Your task to perform on an android device: Clear all items from cart on amazon.com. Add "lg ultragear" to the cart on amazon.com Image 0: 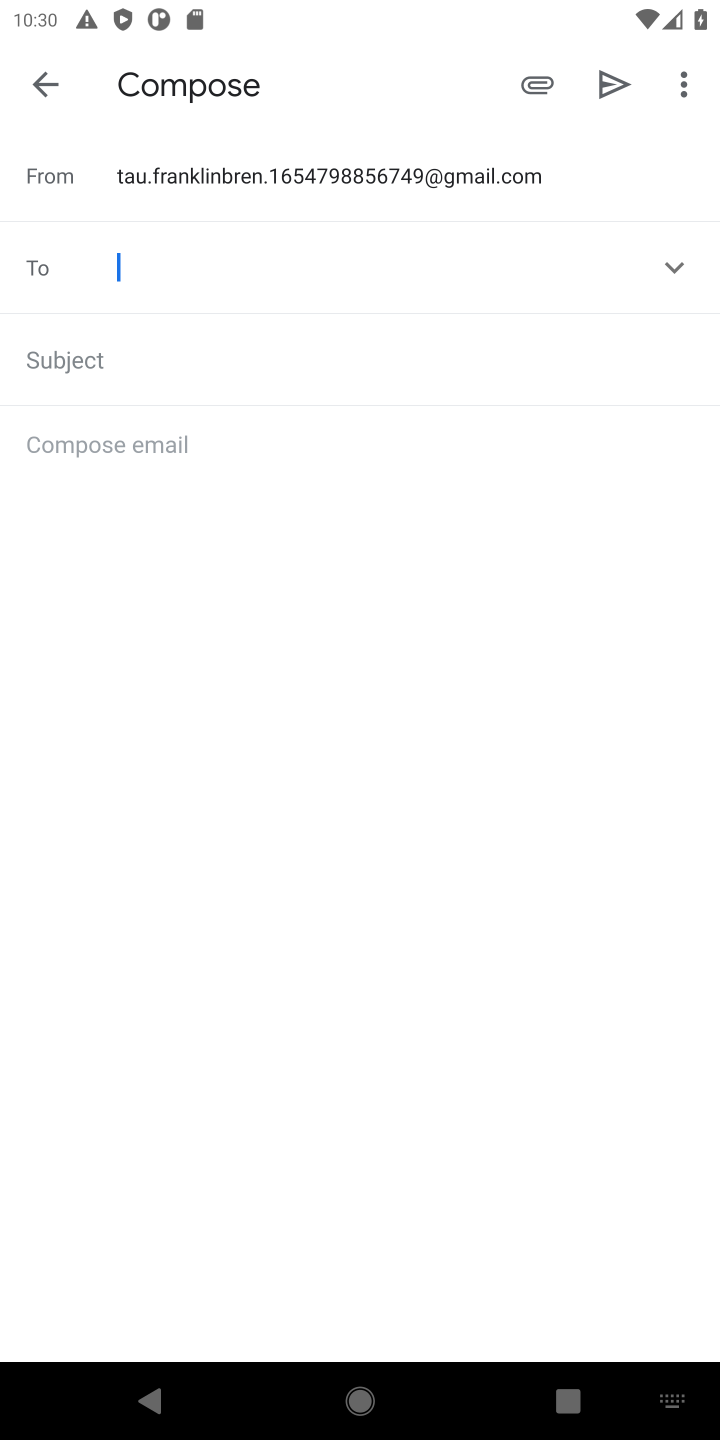
Step 0: press home button
Your task to perform on an android device: Clear all items from cart on amazon.com. Add "lg ultragear" to the cart on amazon.com Image 1: 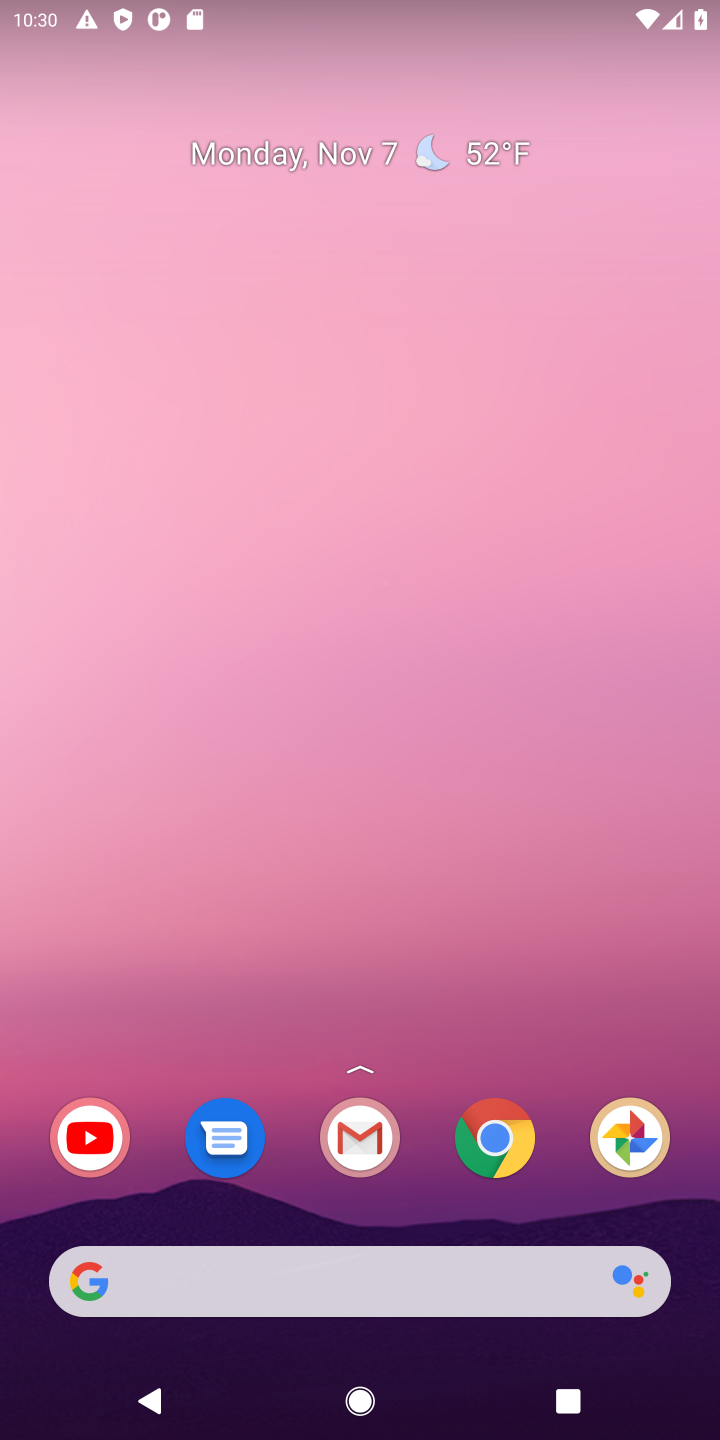
Step 1: click (504, 1141)
Your task to perform on an android device: Clear all items from cart on amazon.com. Add "lg ultragear" to the cart on amazon.com Image 2: 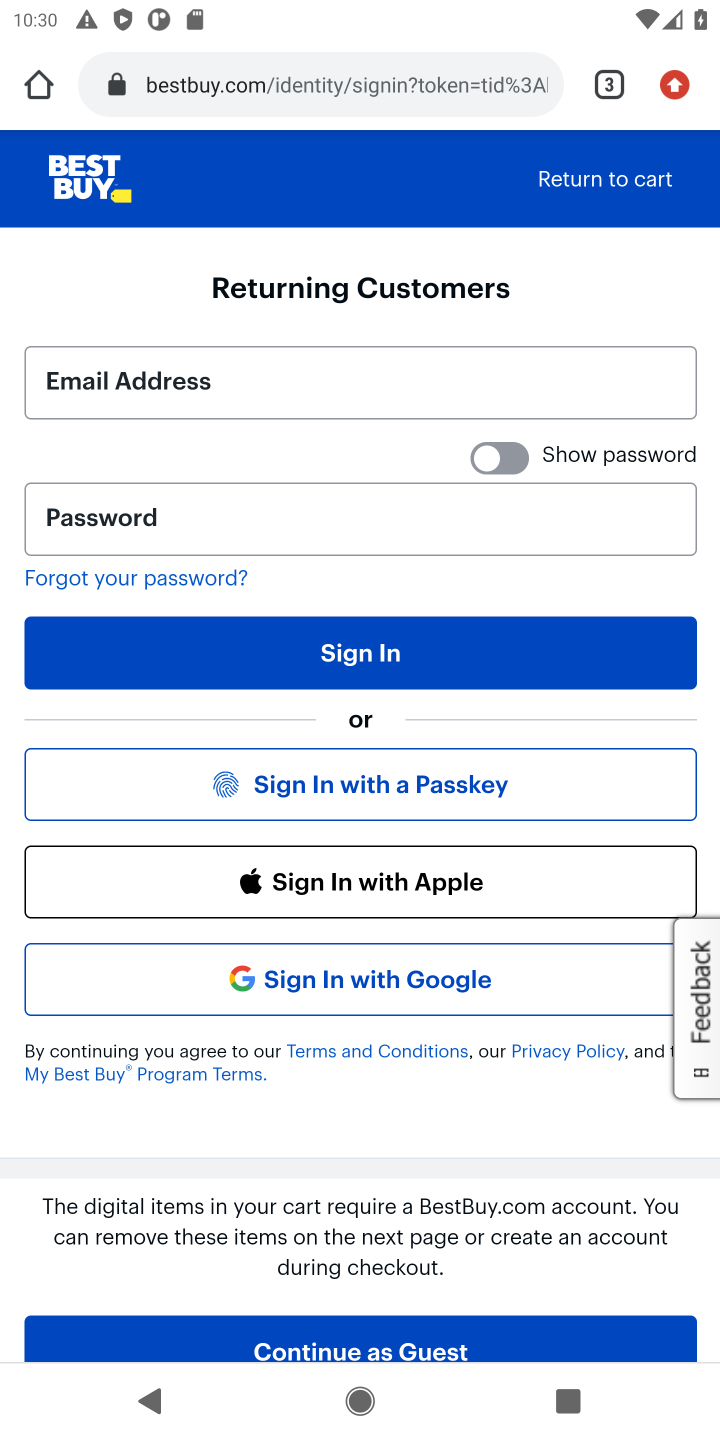
Step 2: click (267, 80)
Your task to perform on an android device: Clear all items from cart on amazon.com. Add "lg ultragear" to the cart on amazon.com Image 3: 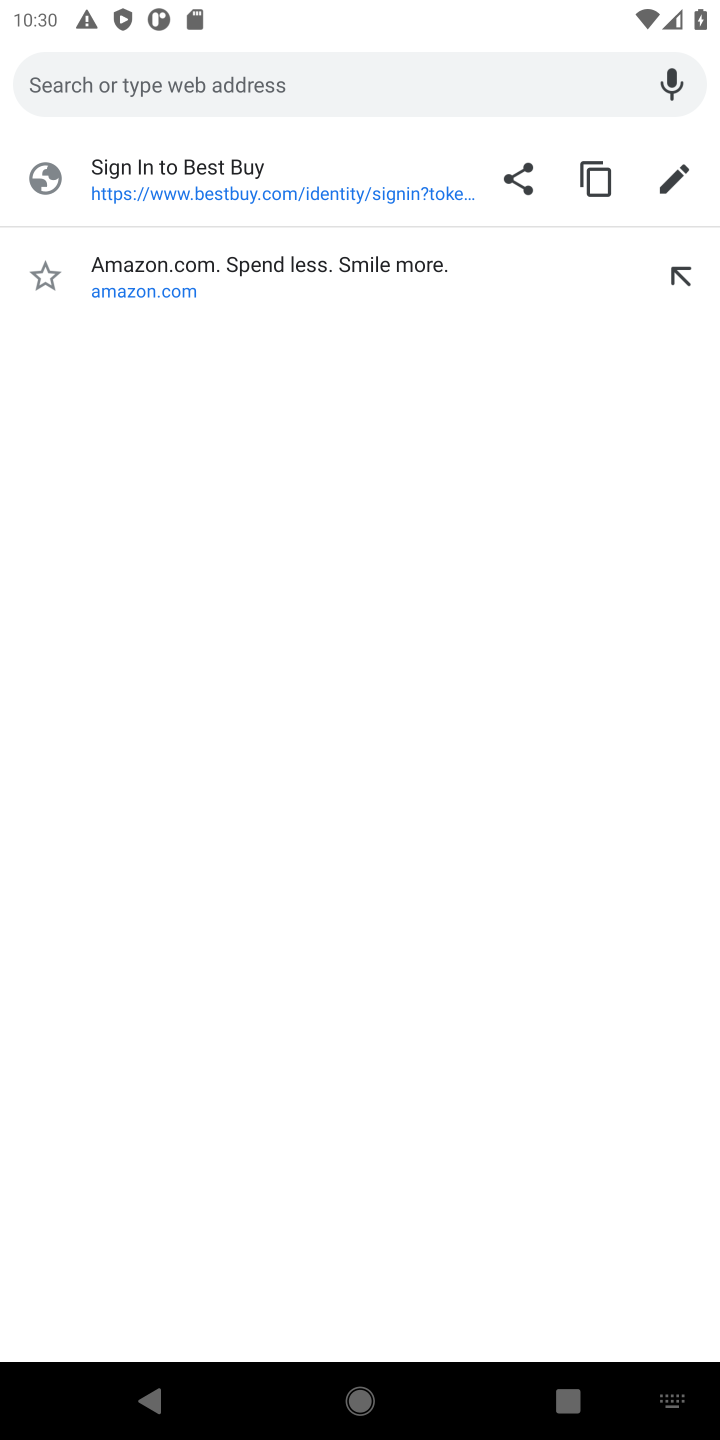
Step 3: type "amazon"
Your task to perform on an android device: Clear all items from cart on amazon.com. Add "lg ultragear" to the cart on amazon.com Image 4: 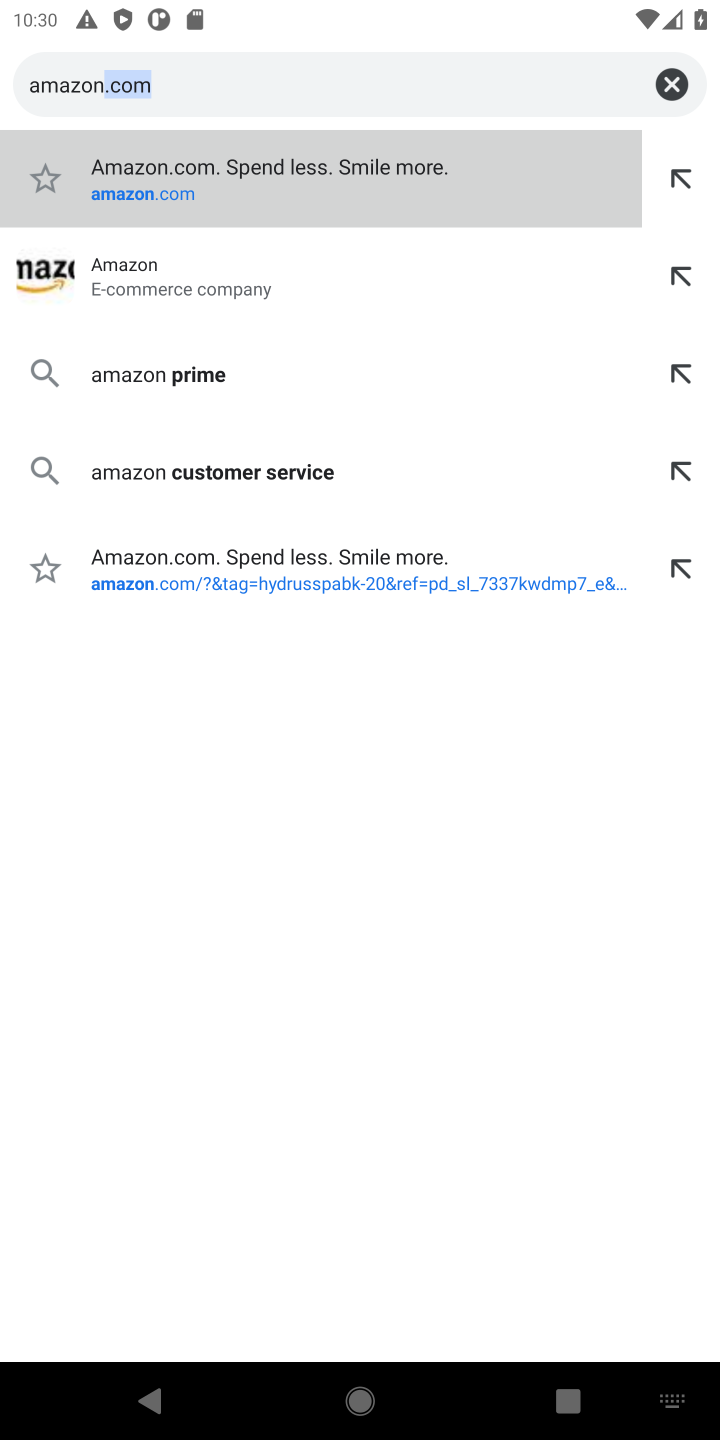
Step 4: click (99, 275)
Your task to perform on an android device: Clear all items from cart on amazon.com. Add "lg ultragear" to the cart on amazon.com Image 5: 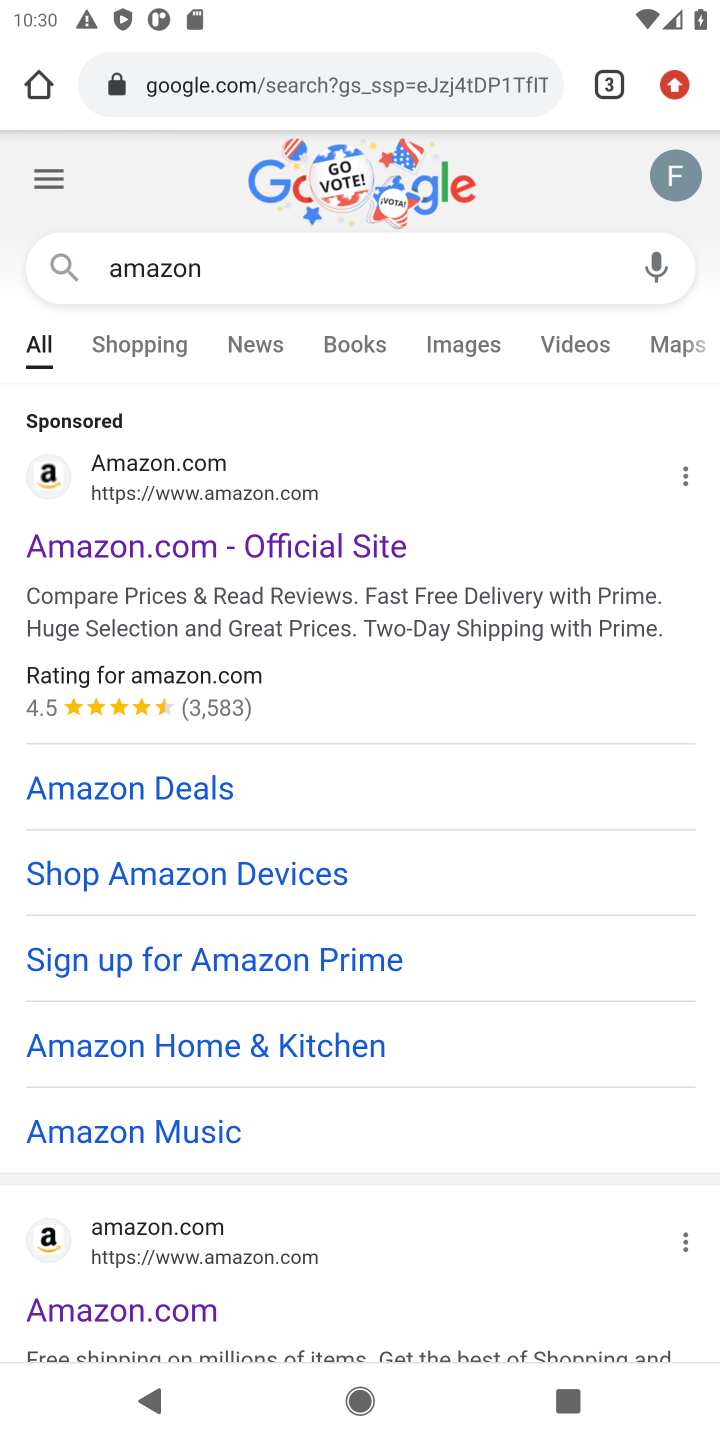
Step 5: drag from (231, 1021) to (250, 513)
Your task to perform on an android device: Clear all items from cart on amazon.com. Add "lg ultragear" to the cart on amazon.com Image 6: 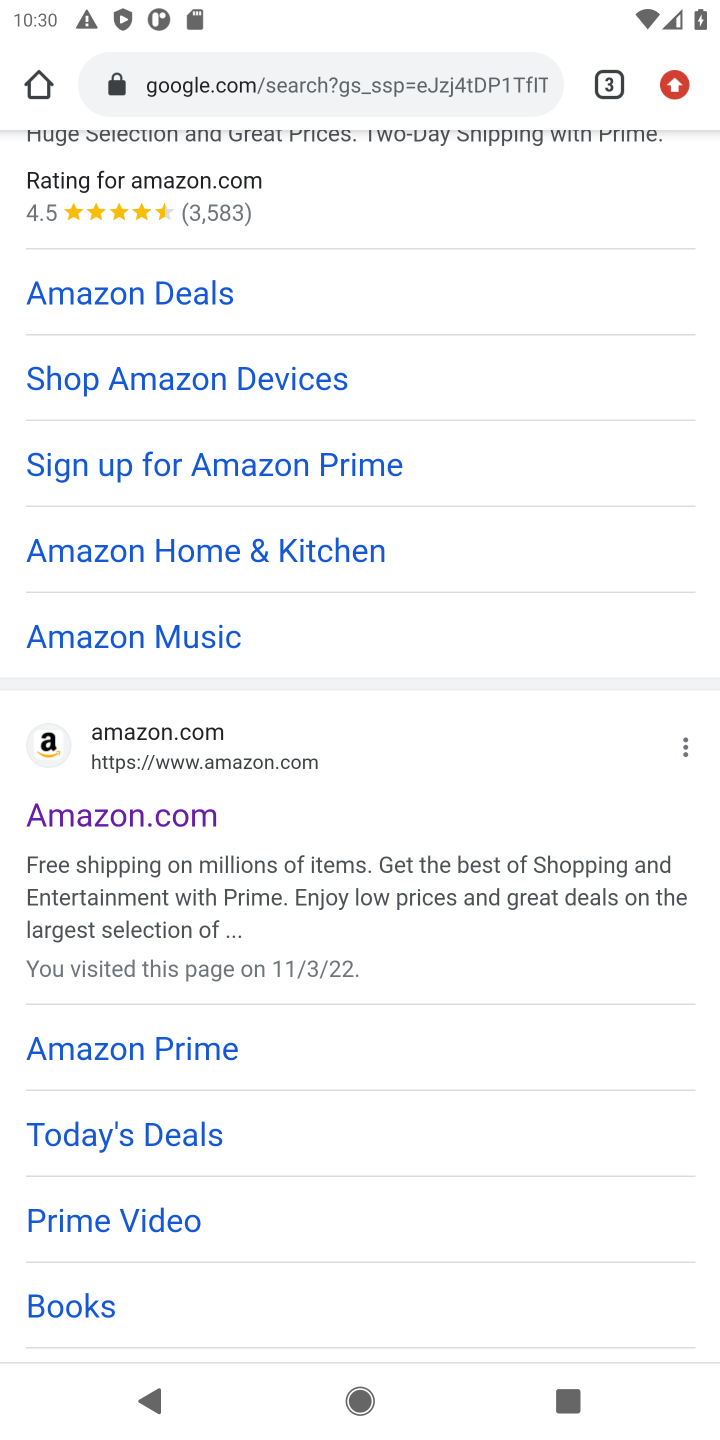
Step 6: click (96, 825)
Your task to perform on an android device: Clear all items from cart on amazon.com. Add "lg ultragear" to the cart on amazon.com Image 7: 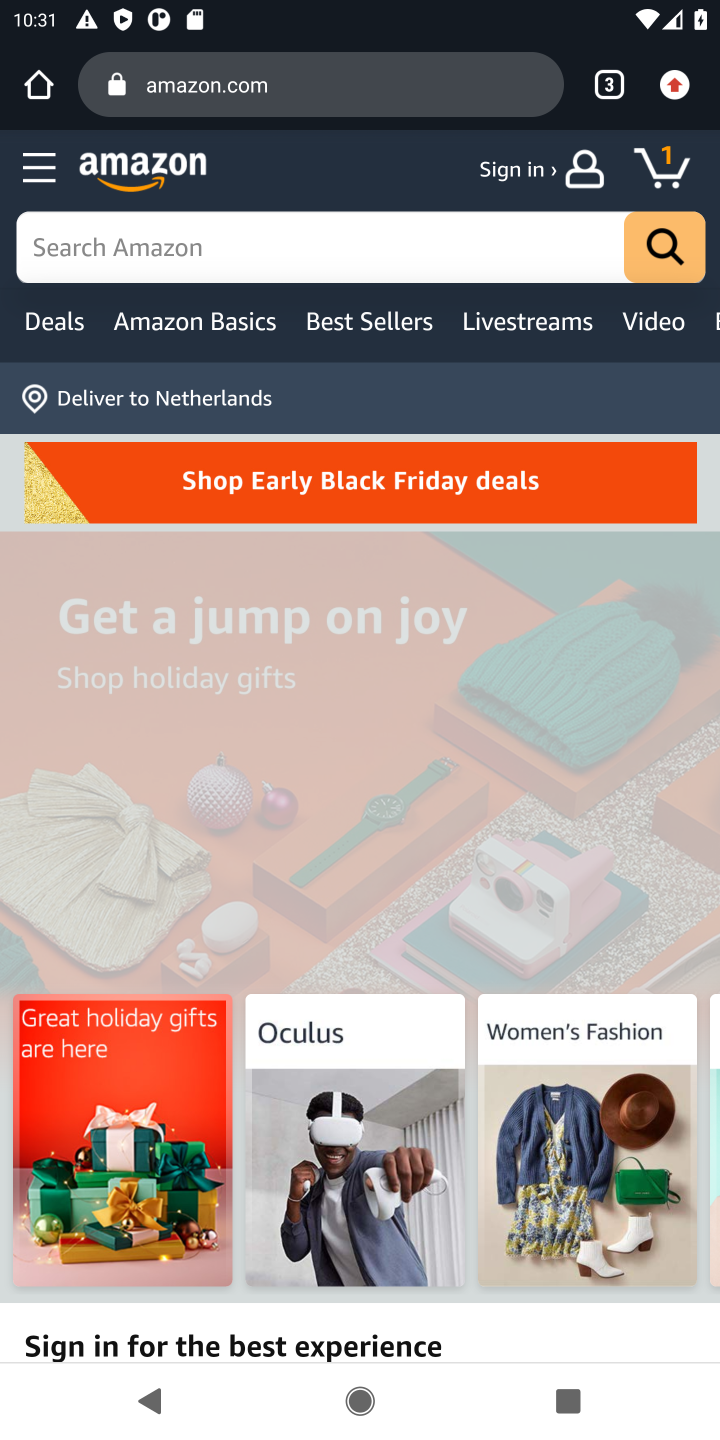
Step 7: click (160, 248)
Your task to perform on an android device: Clear all items from cart on amazon.com. Add "lg ultragear" to the cart on amazon.com Image 8: 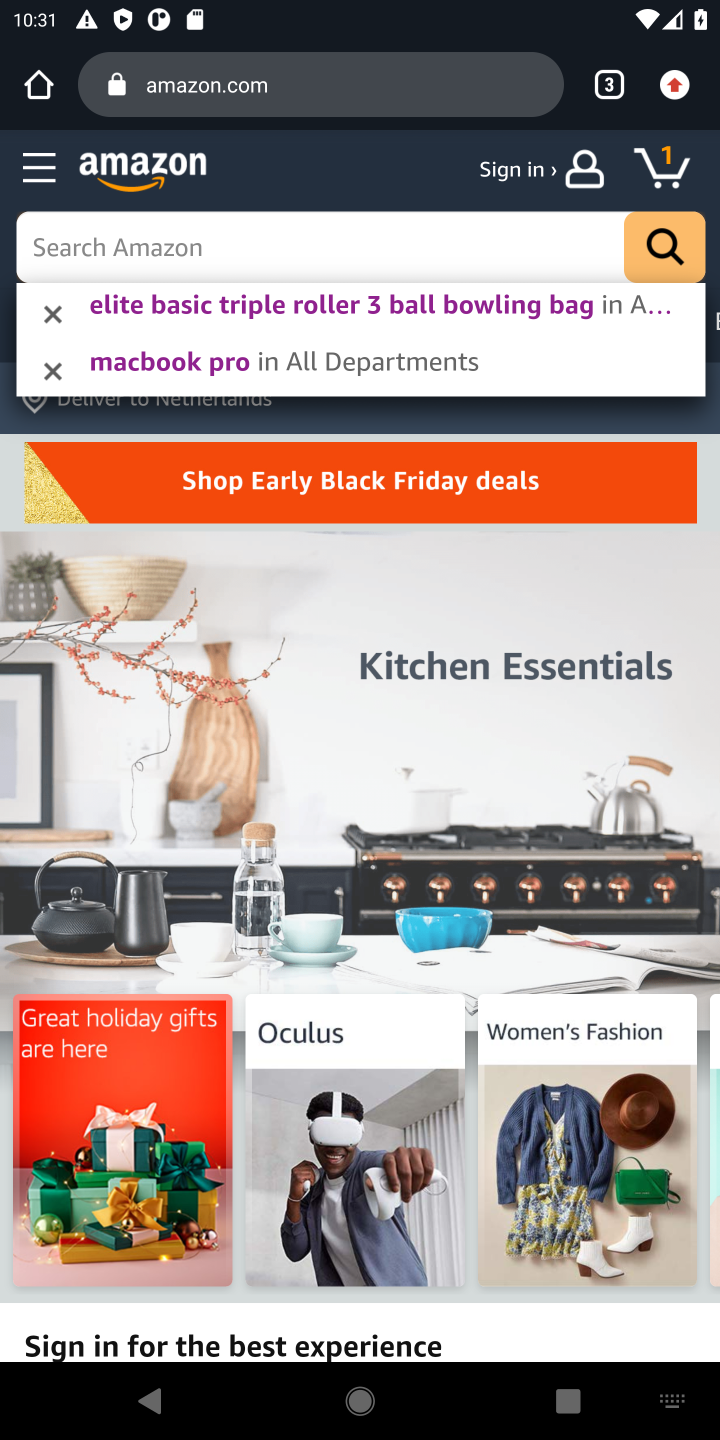
Step 8: type "lg ultragear"
Your task to perform on an android device: Clear all items from cart on amazon.com. Add "lg ultragear" to the cart on amazon.com Image 9: 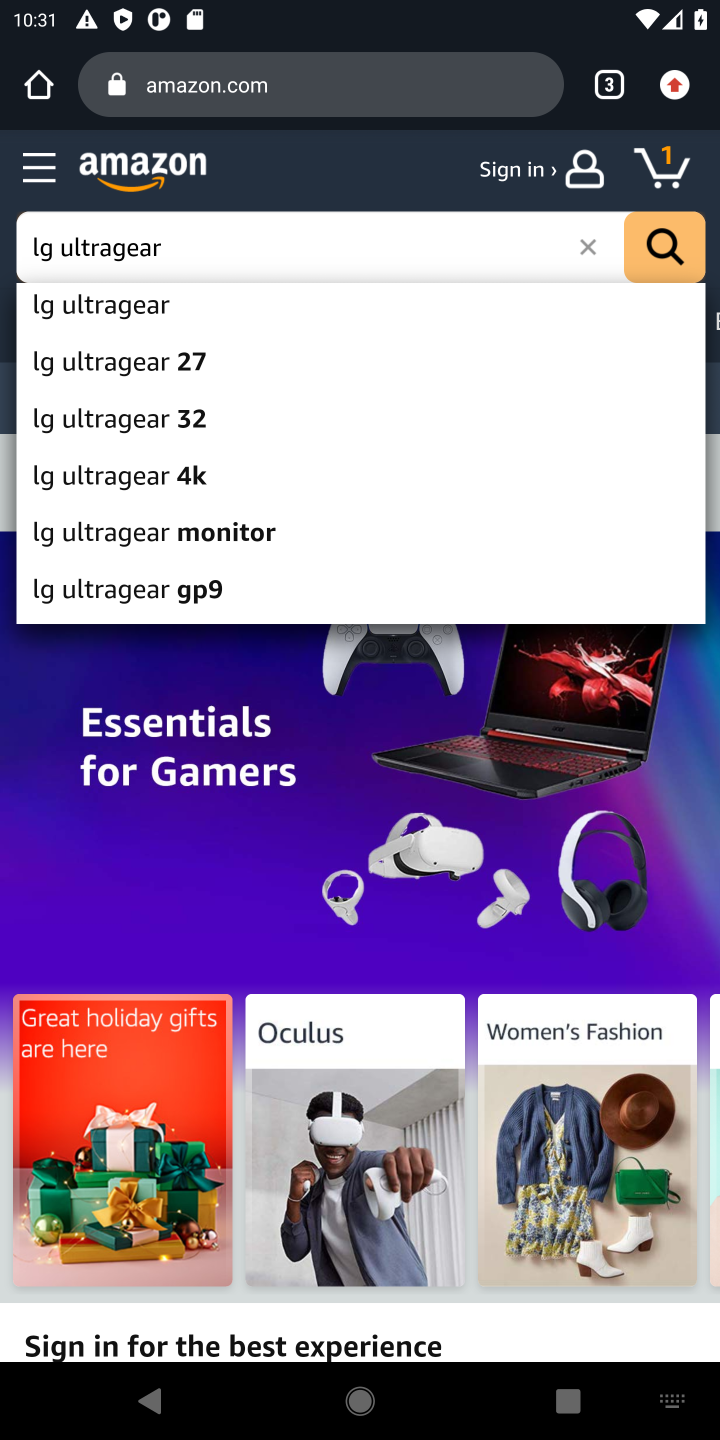
Step 9: click (105, 304)
Your task to perform on an android device: Clear all items from cart on amazon.com. Add "lg ultragear" to the cart on amazon.com Image 10: 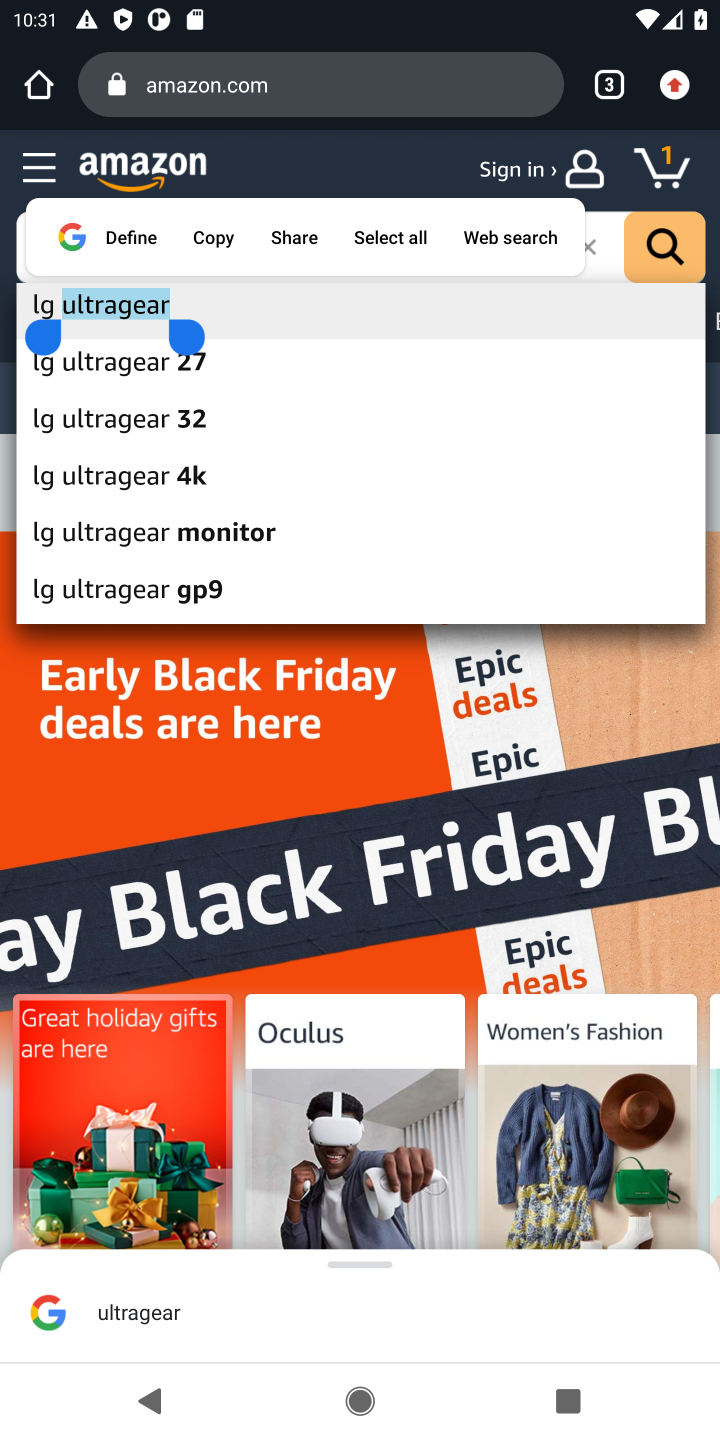
Step 10: click (75, 312)
Your task to perform on an android device: Clear all items from cart on amazon.com. Add "lg ultragear" to the cart on amazon.com Image 11: 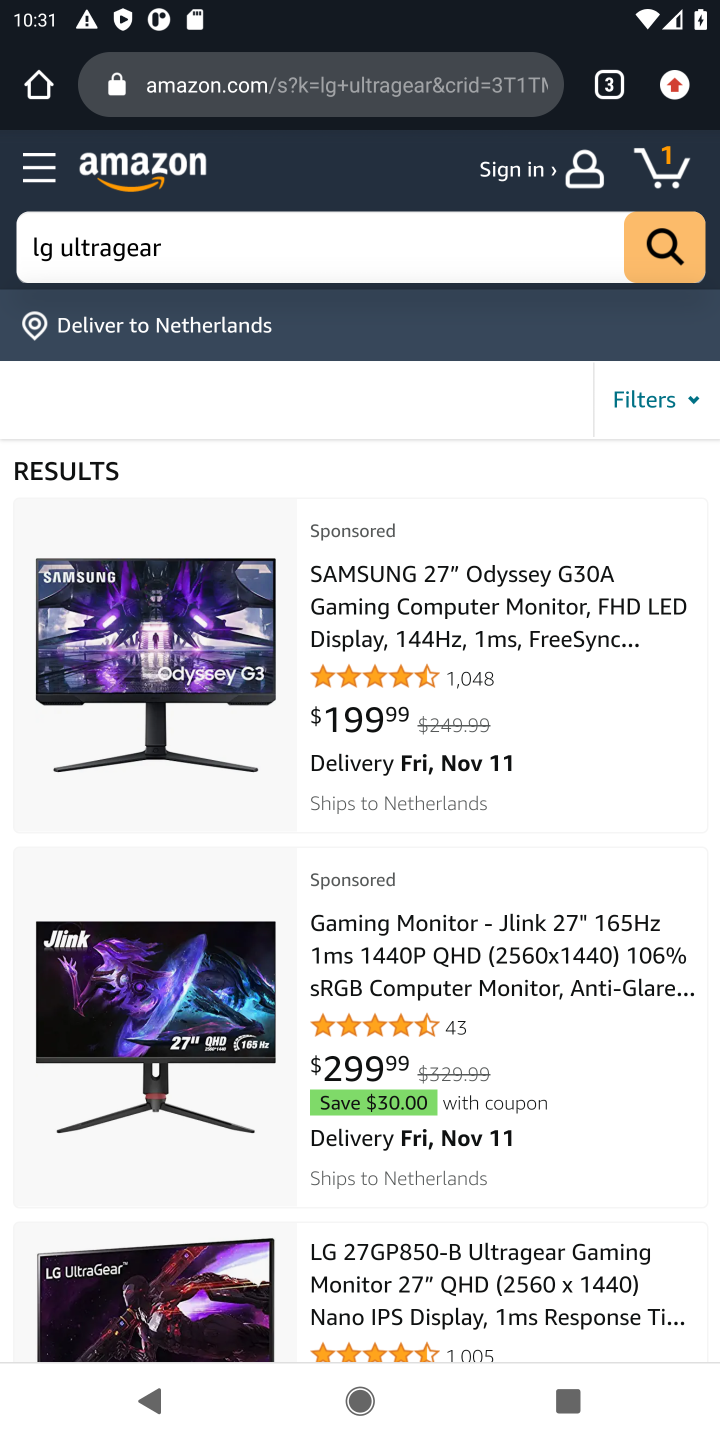
Step 11: click (209, 1271)
Your task to perform on an android device: Clear all items from cart on amazon.com. Add "lg ultragear" to the cart on amazon.com Image 12: 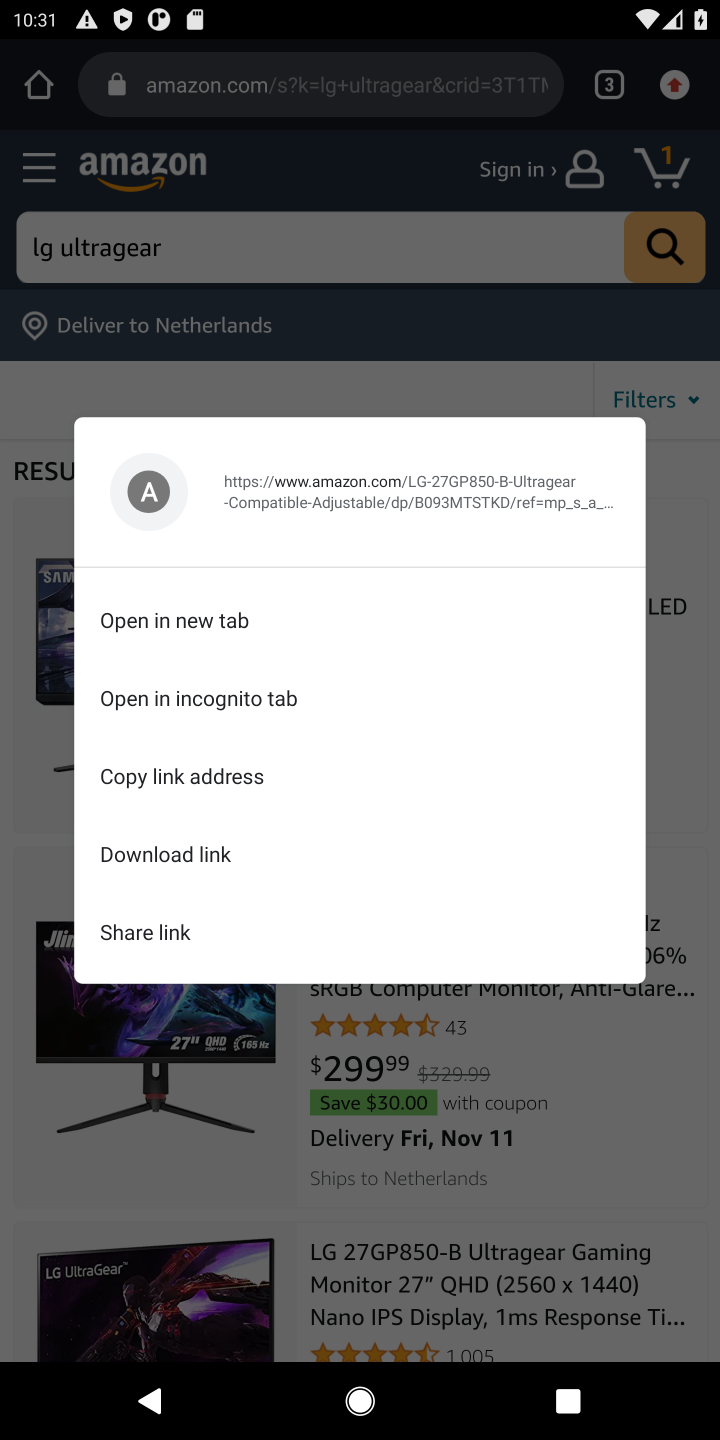
Step 12: click (181, 626)
Your task to perform on an android device: Clear all items from cart on amazon.com. Add "lg ultragear" to the cart on amazon.com Image 13: 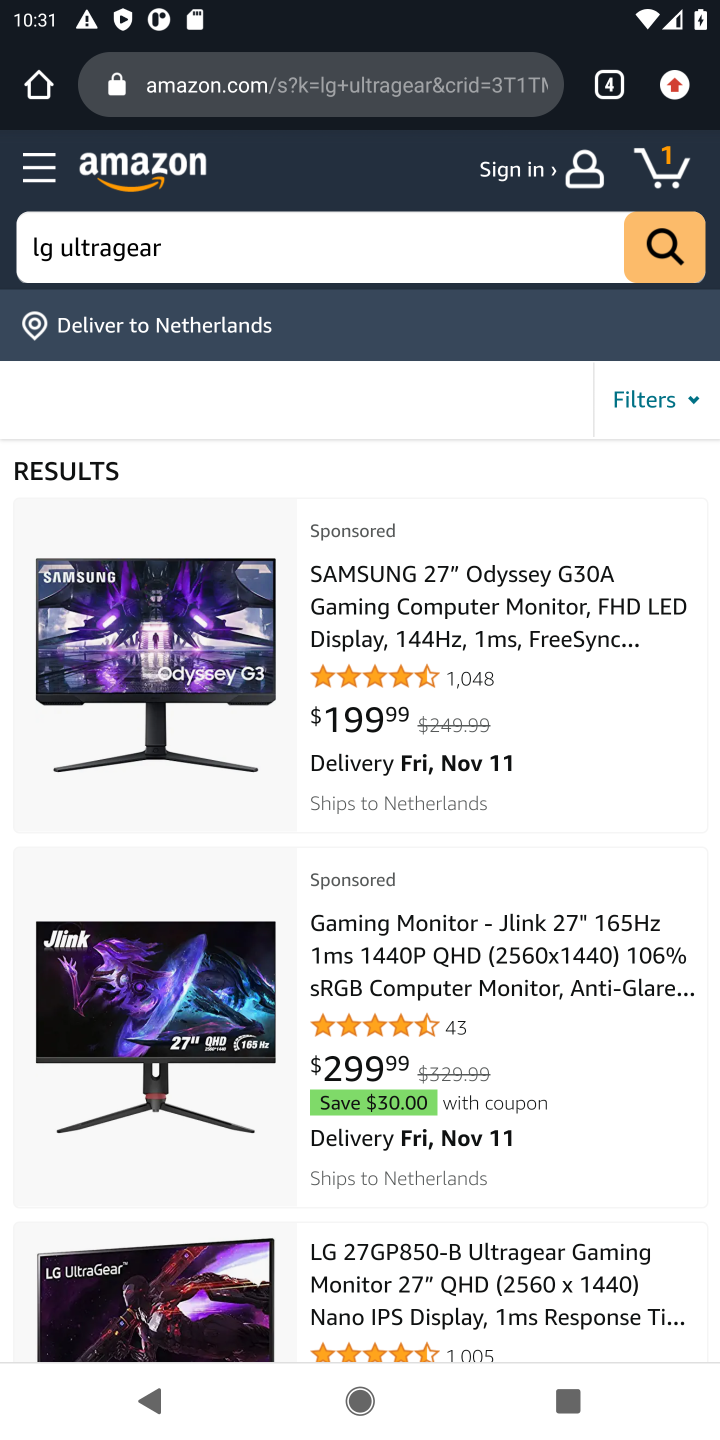
Step 13: click (444, 932)
Your task to perform on an android device: Clear all items from cart on amazon.com. Add "lg ultragear" to the cart on amazon.com Image 14: 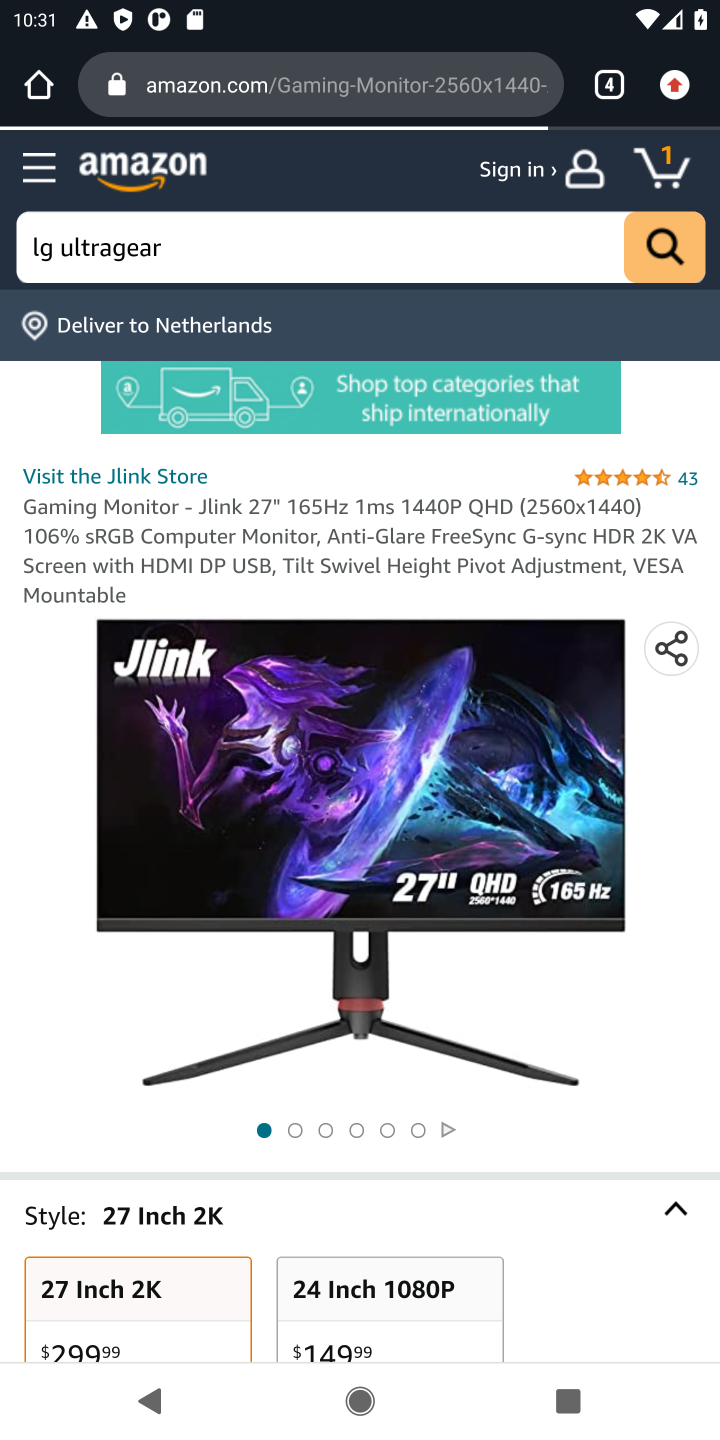
Step 14: drag from (444, 1073) to (496, 717)
Your task to perform on an android device: Clear all items from cart on amazon.com. Add "lg ultragear" to the cart on amazon.com Image 15: 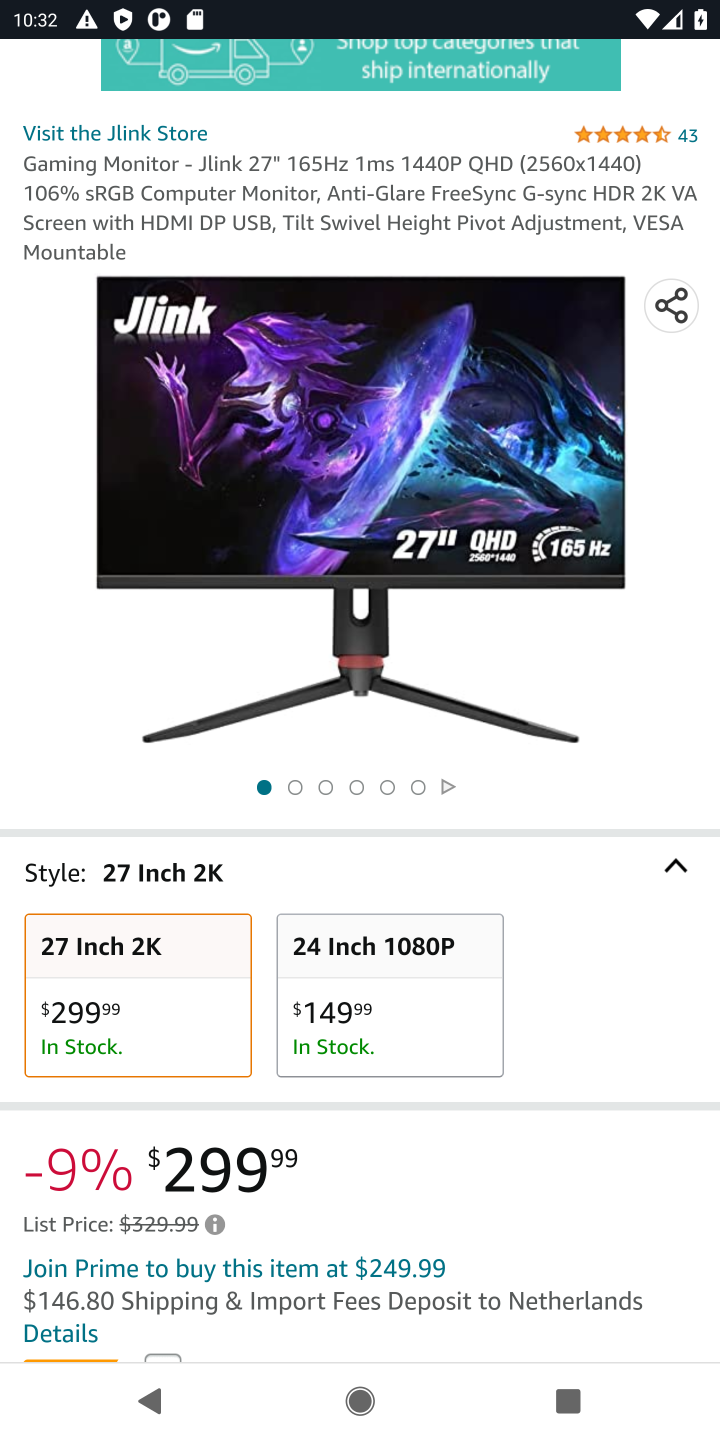
Step 15: drag from (336, 1093) to (360, 506)
Your task to perform on an android device: Clear all items from cart on amazon.com. Add "lg ultragear" to the cart on amazon.com Image 16: 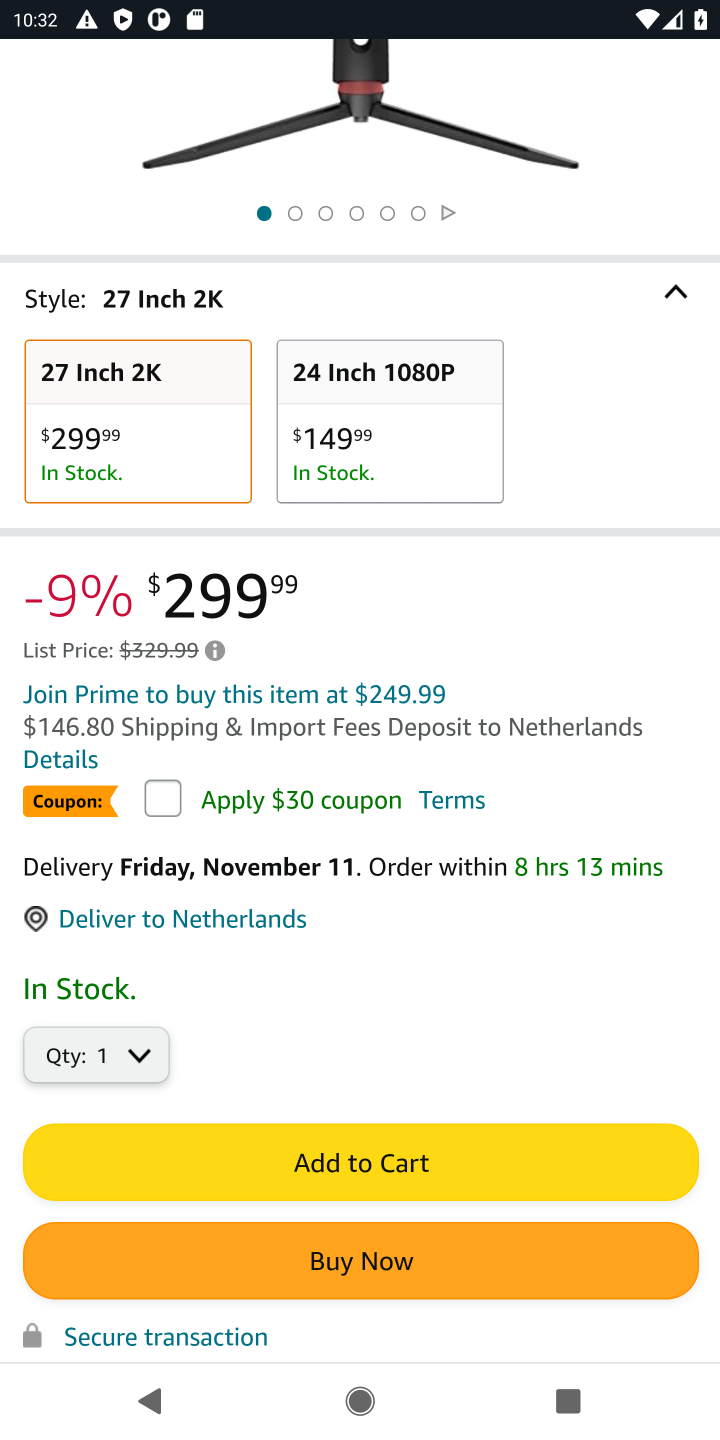
Step 16: click (373, 1152)
Your task to perform on an android device: Clear all items from cart on amazon.com. Add "lg ultragear" to the cart on amazon.com Image 17: 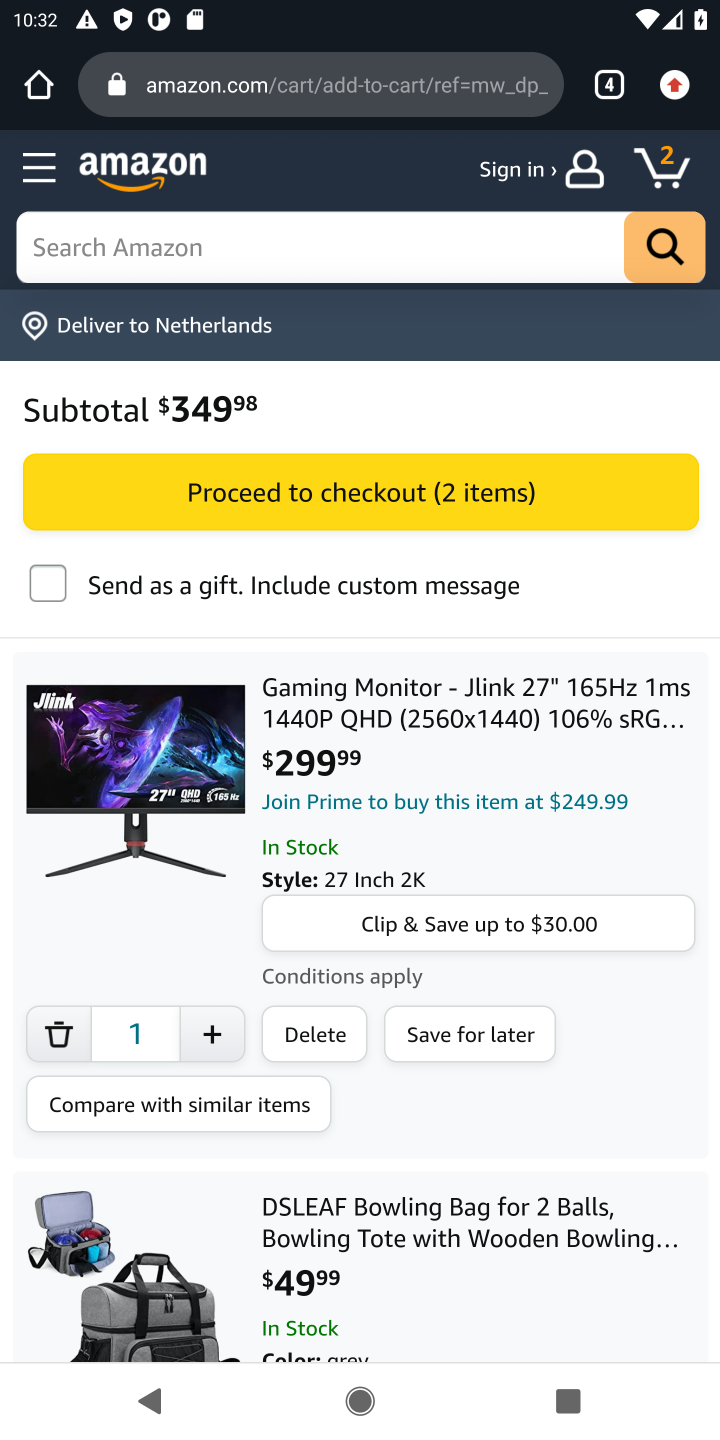
Step 17: click (665, 176)
Your task to perform on an android device: Clear all items from cart on amazon.com. Add "lg ultragear" to the cart on amazon.com Image 18: 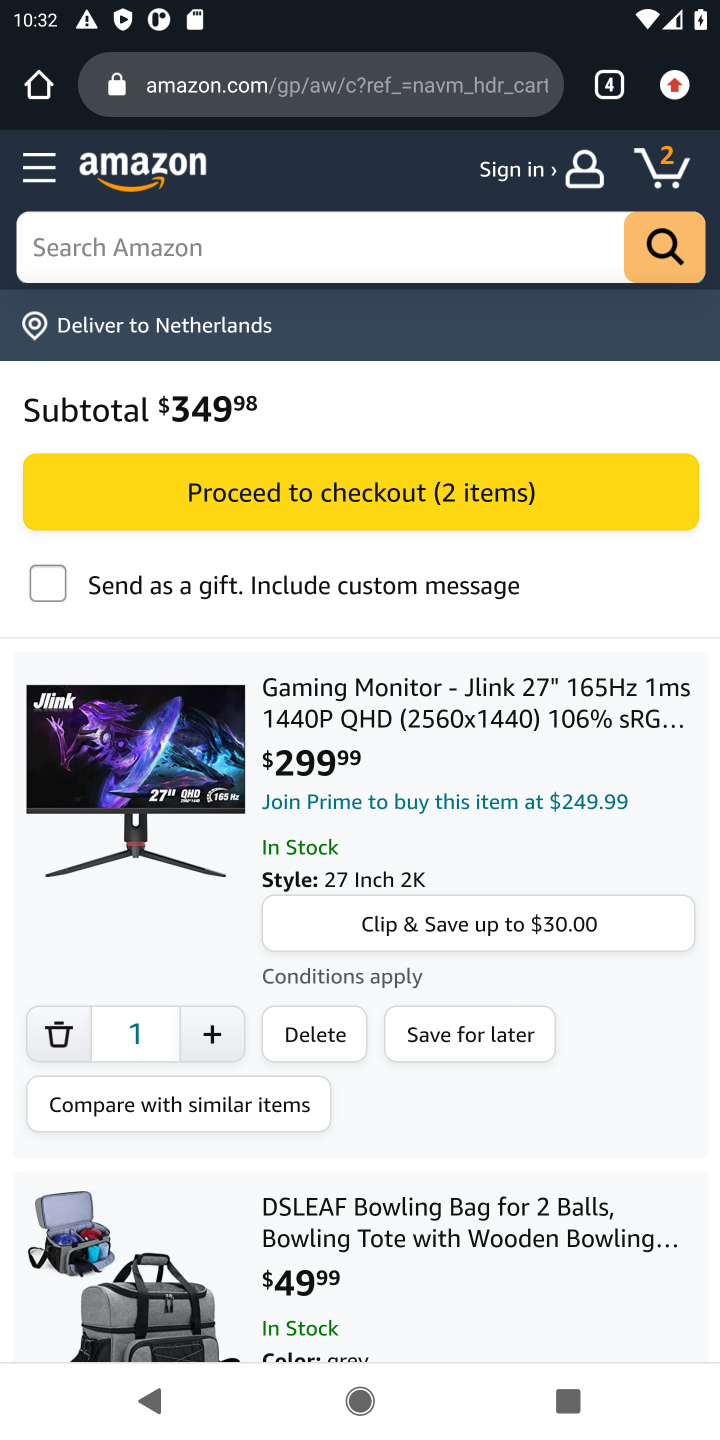
Step 18: drag from (371, 1206) to (499, 338)
Your task to perform on an android device: Clear all items from cart on amazon.com. Add "lg ultragear" to the cart on amazon.com Image 19: 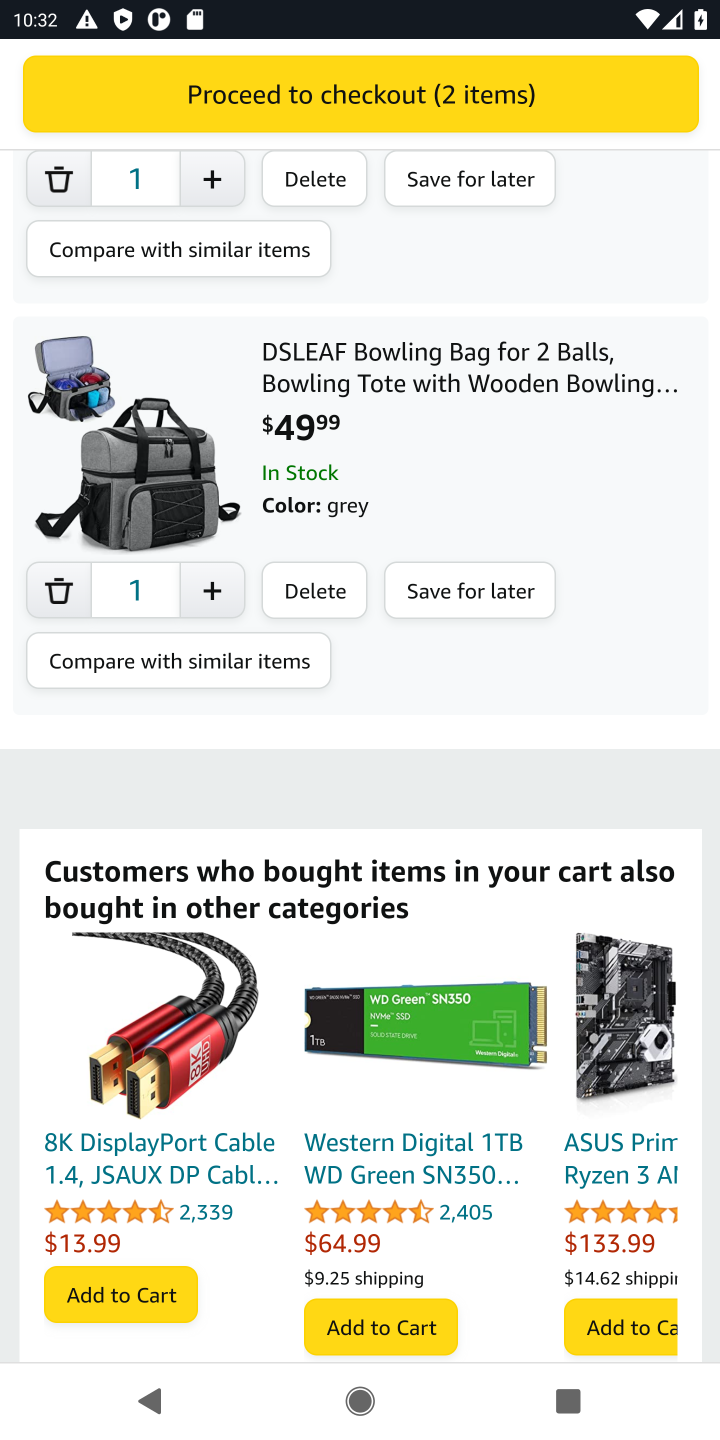
Step 19: click (321, 596)
Your task to perform on an android device: Clear all items from cart on amazon.com. Add "lg ultragear" to the cart on amazon.com Image 20: 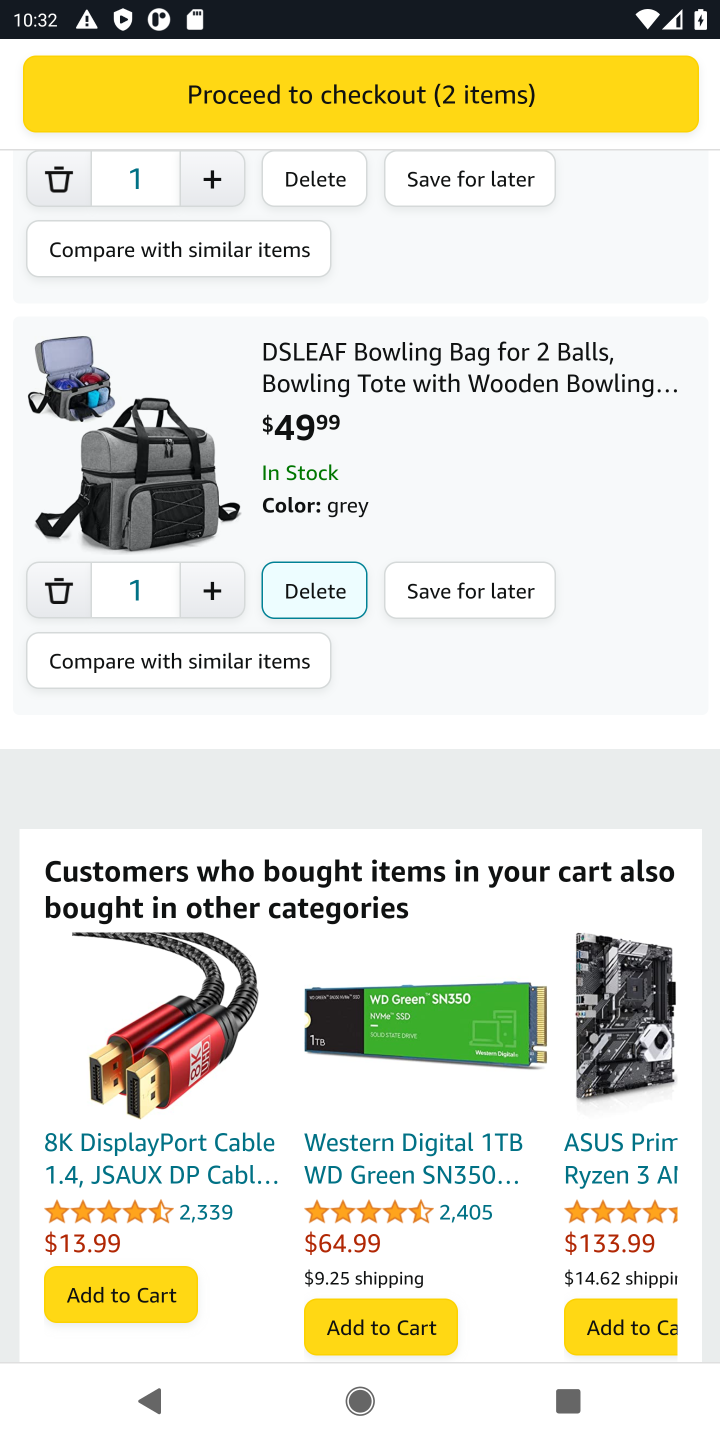
Step 20: click (65, 586)
Your task to perform on an android device: Clear all items from cart on amazon.com. Add "lg ultragear" to the cart on amazon.com Image 21: 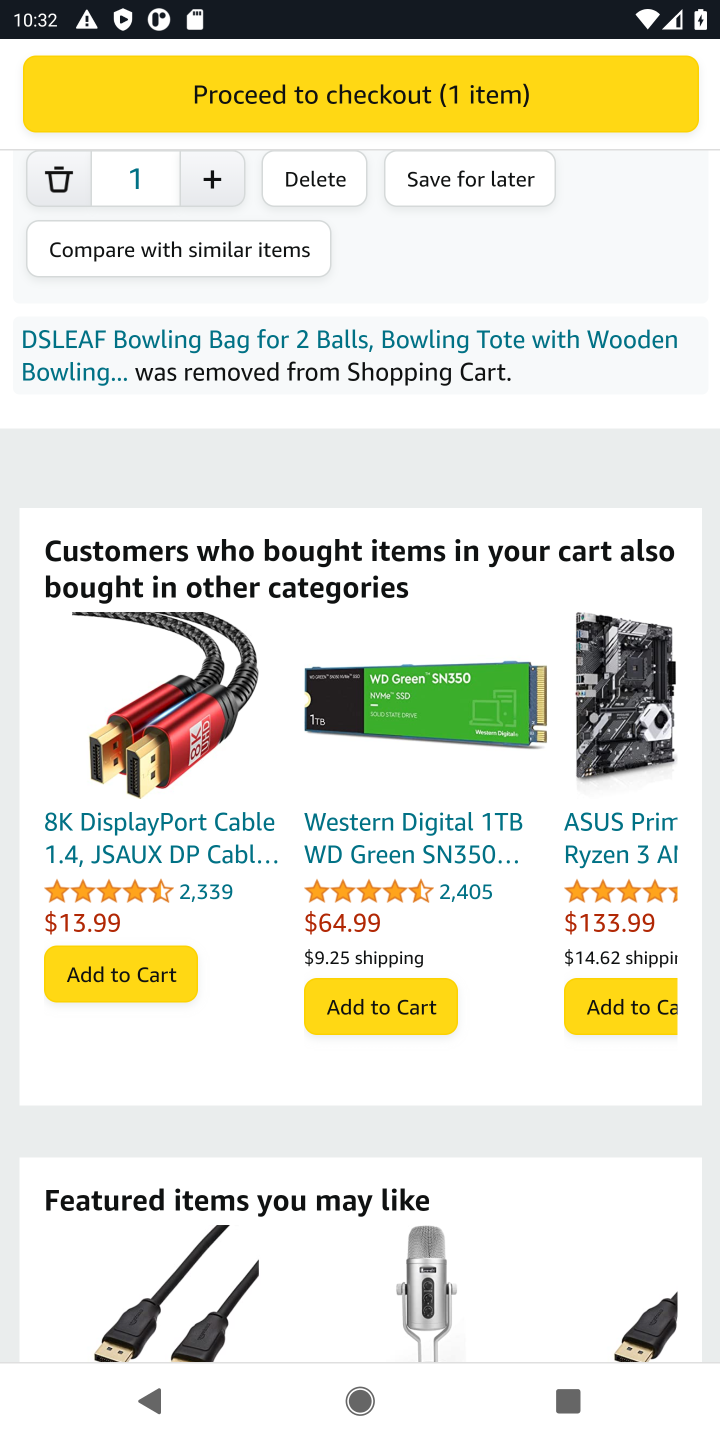
Step 21: task complete